Your task to perform on an android device: Open Google Chrome and click the shortcut for Amazon.com Image 0: 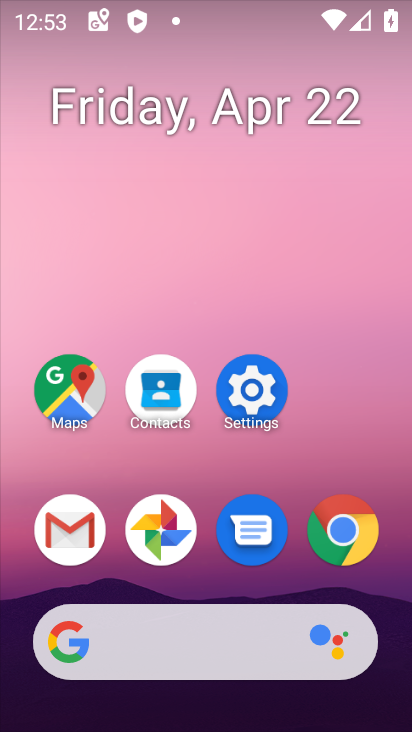
Step 0: click (349, 541)
Your task to perform on an android device: Open Google Chrome and click the shortcut for Amazon.com Image 1: 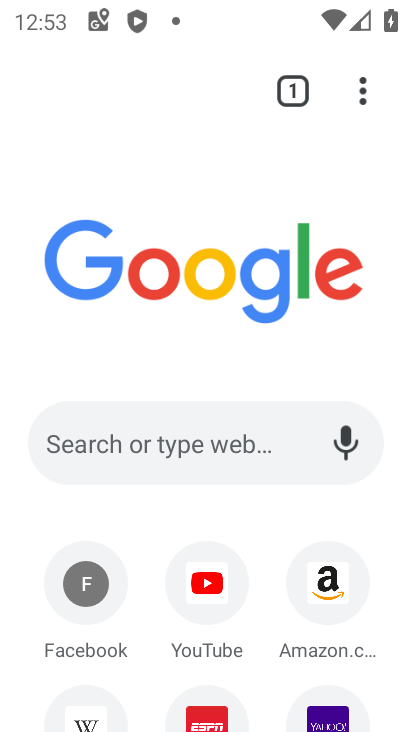
Step 1: click (328, 582)
Your task to perform on an android device: Open Google Chrome and click the shortcut for Amazon.com Image 2: 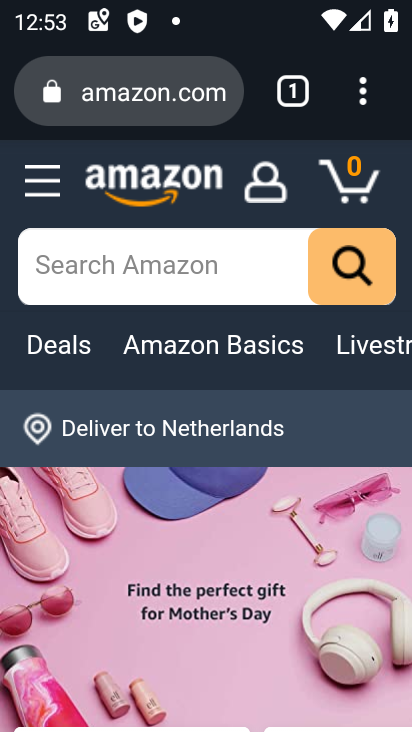
Step 2: task complete